Your task to perform on an android device: turn off location Image 0: 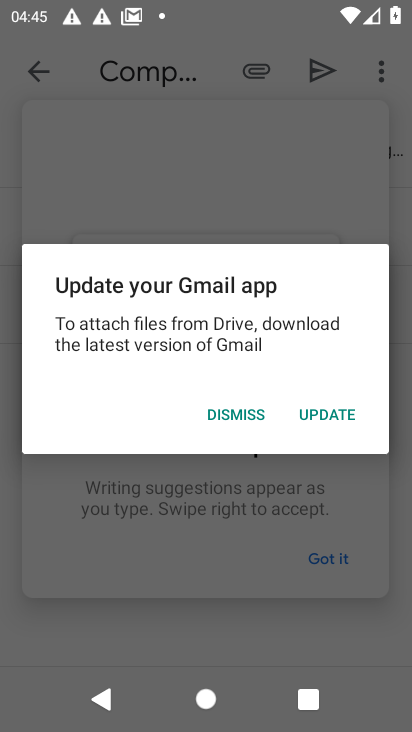
Step 0: press home button
Your task to perform on an android device: turn off location Image 1: 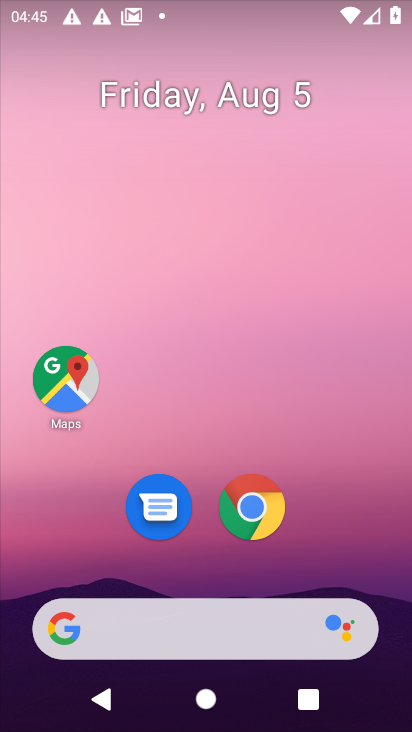
Step 1: drag from (159, 600) to (175, 153)
Your task to perform on an android device: turn off location Image 2: 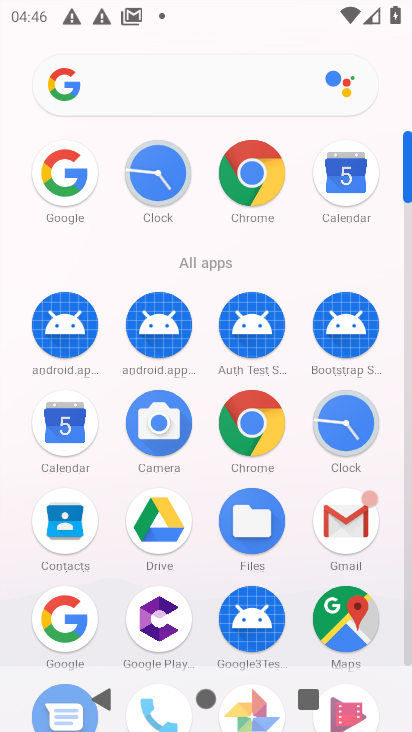
Step 2: drag from (163, 624) to (110, 261)
Your task to perform on an android device: turn off location Image 3: 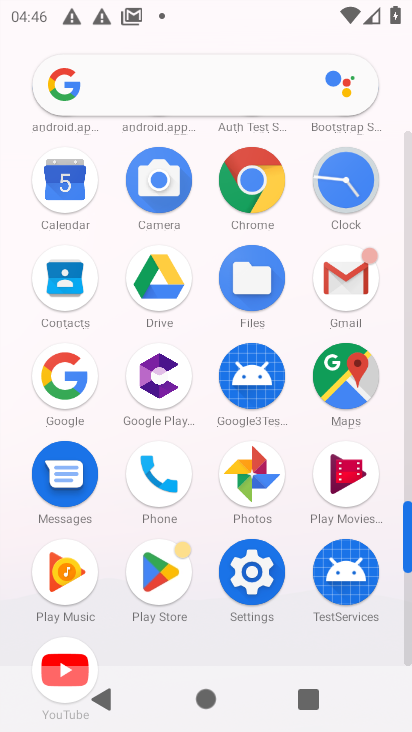
Step 3: click (270, 578)
Your task to perform on an android device: turn off location Image 4: 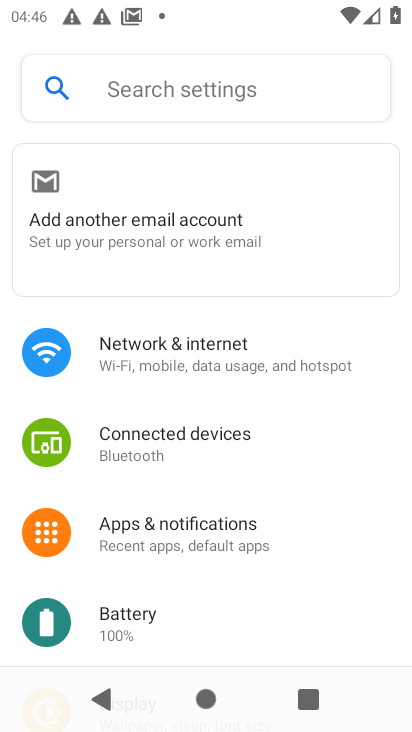
Step 4: drag from (195, 620) to (138, 304)
Your task to perform on an android device: turn off location Image 5: 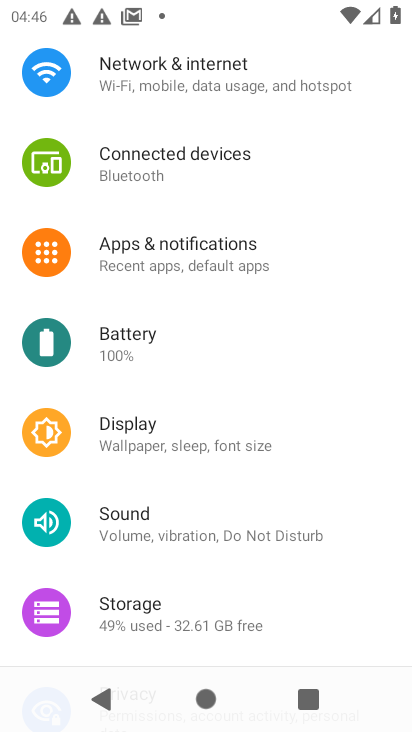
Step 5: drag from (171, 595) to (165, 291)
Your task to perform on an android device: turn off location Image 6: 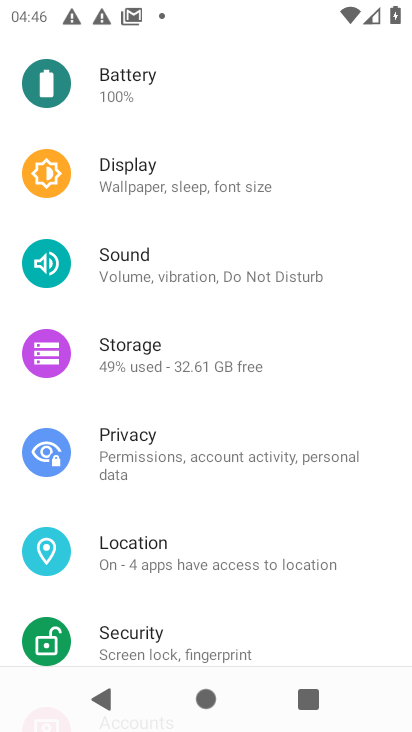
Step 6: click (137, 542)
Your task to perform on an android device: turn off location Image 7: 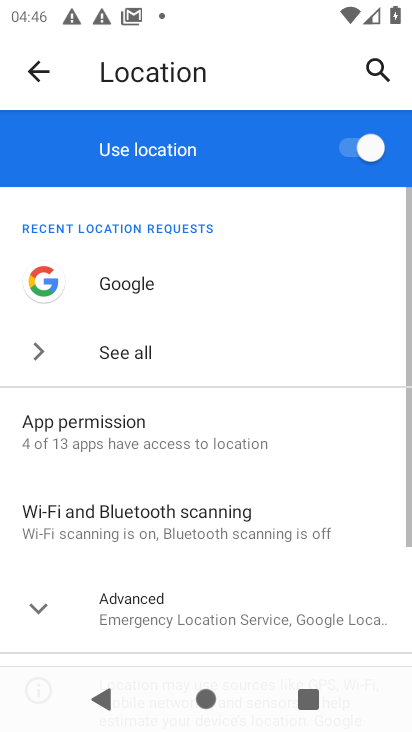
Step 7: click (346, 154)
Your task to perform on an android device: turn off location Image 8: 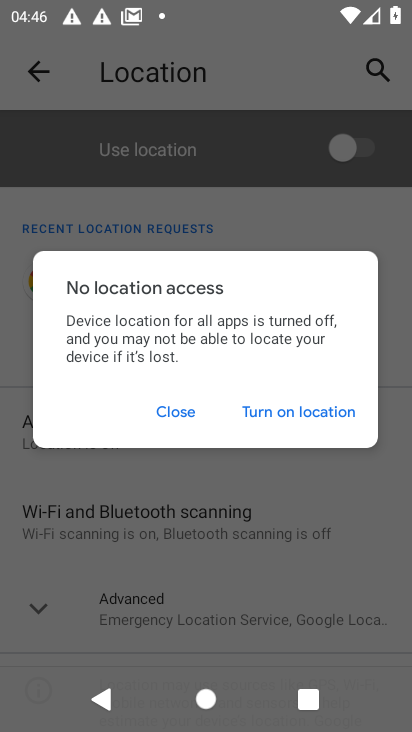
Step 8: click (200, 408)
Your task to perform on an android device: turn off location Image 9: 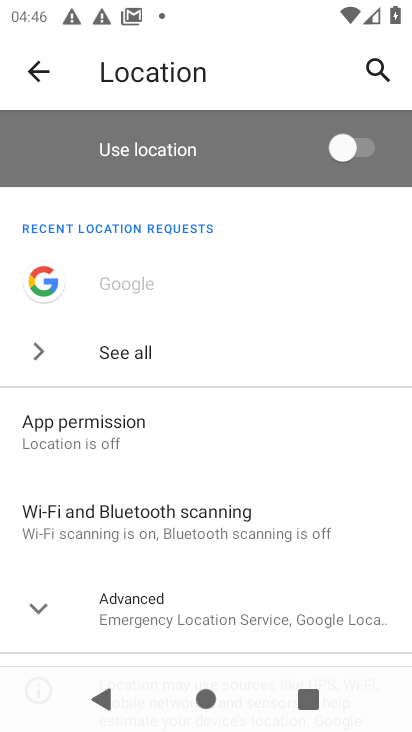
Step 9: task complete